Your task to perform on an android device: Clear all items from cart on costco.com. Search for dell xps on costco.com, select the first entry, add it to the cart, then select checkout. Image 0: 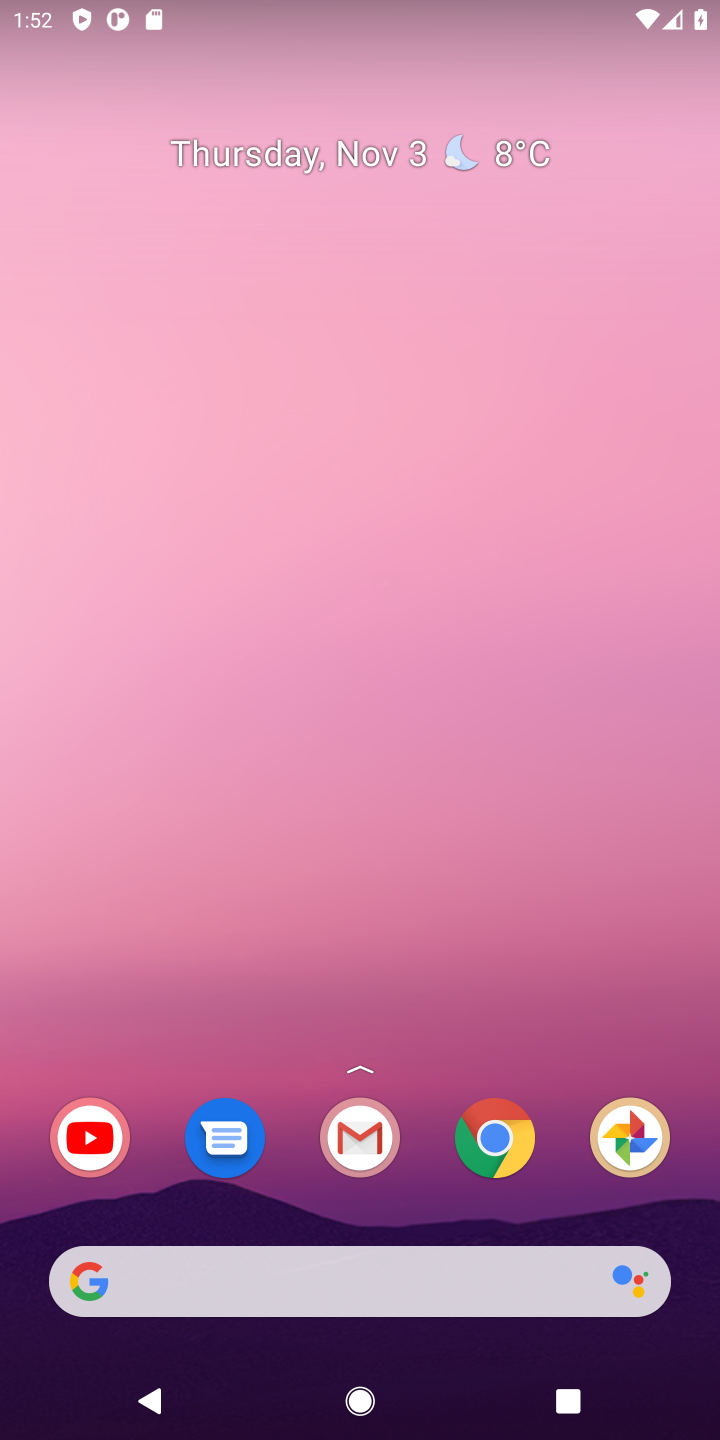
Step 0: click (506, 1115)
Your task to perform on an android device: Clear all items from cart on costco.com. Search for dell xps on costco.com, select the first entry, add it to the cart, then select checkout. Image 1: 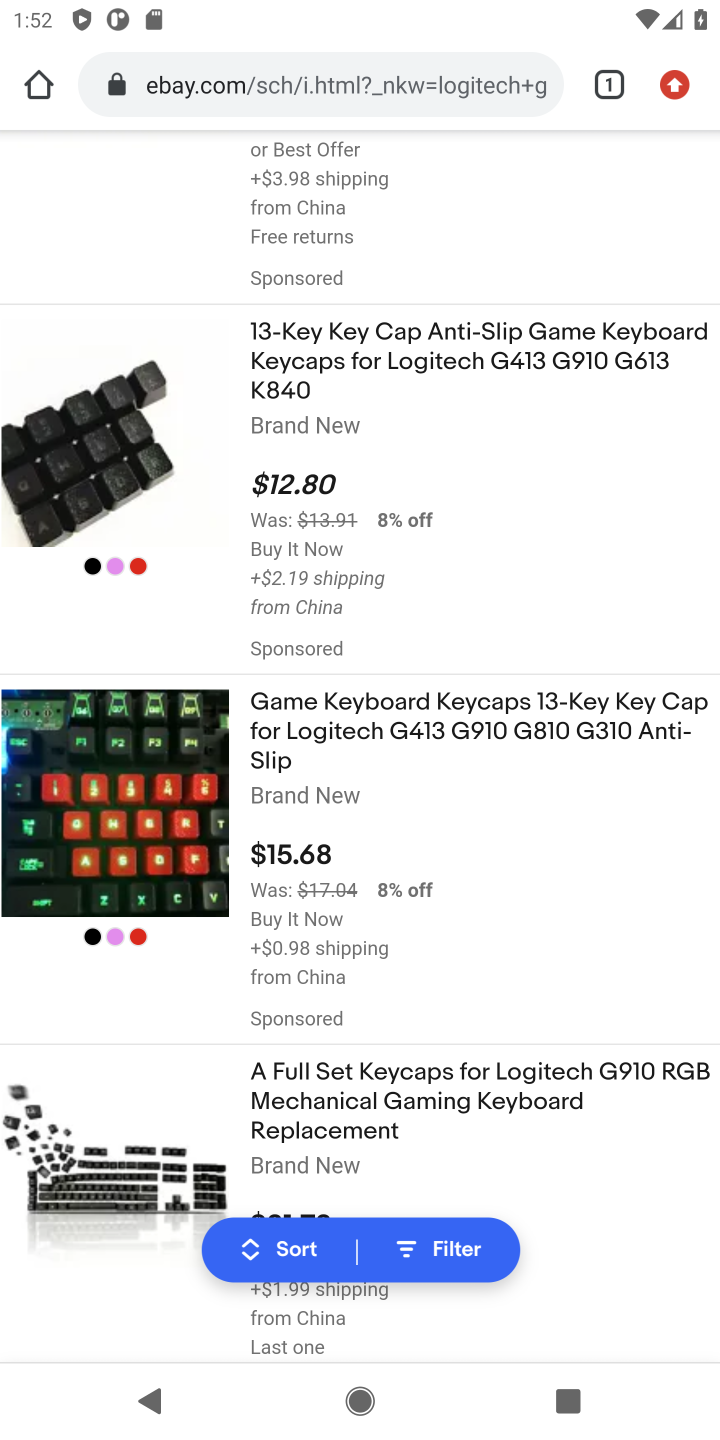
Step 1: click (294, 95)
Your task to perform on an android device: Clear all items from cart on costco.com. Search for dell xps on costco.com, select the first entry, add it to the cart, then select checkout. Image 2: 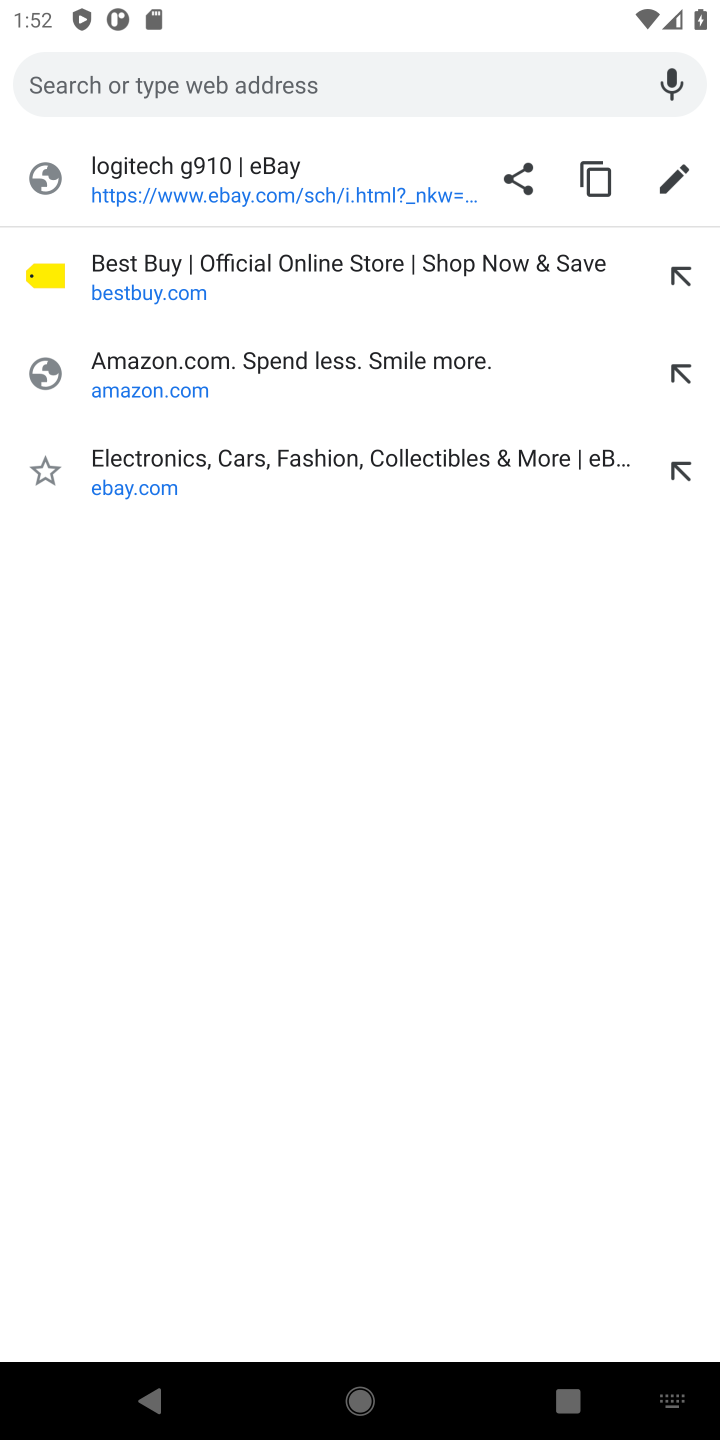
Step 2: type "costco"
Your task to perform on an android device: Clear all items from cart on costco.com. Search for dell xps on costco.com, select the first entry, add it to the cart, then select checkout. Image 3: 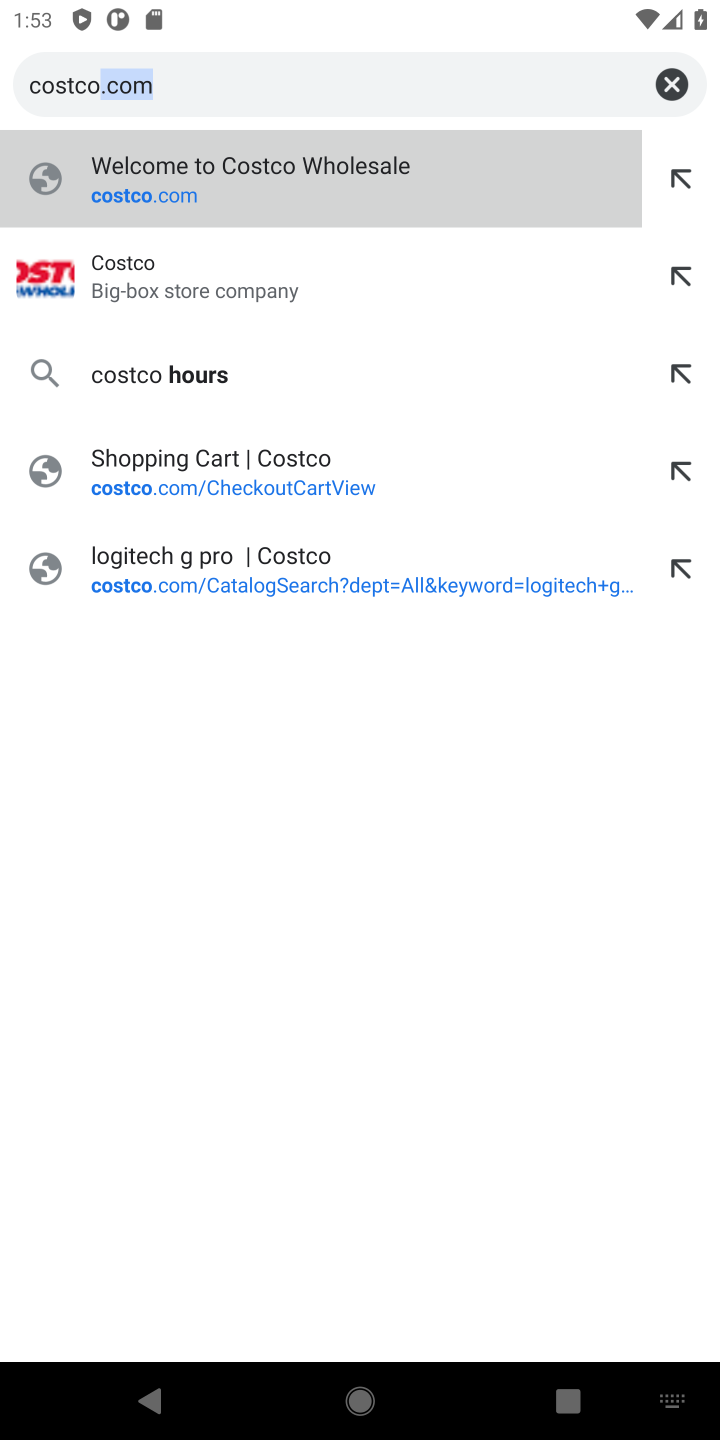
Step 3: click (128, 267)
Your task to perform on an android device: Clear all items from cart on costco.com. Search for dell xps on costco.com, select the first entry, add it to the cart, then select checkout. Image 4: 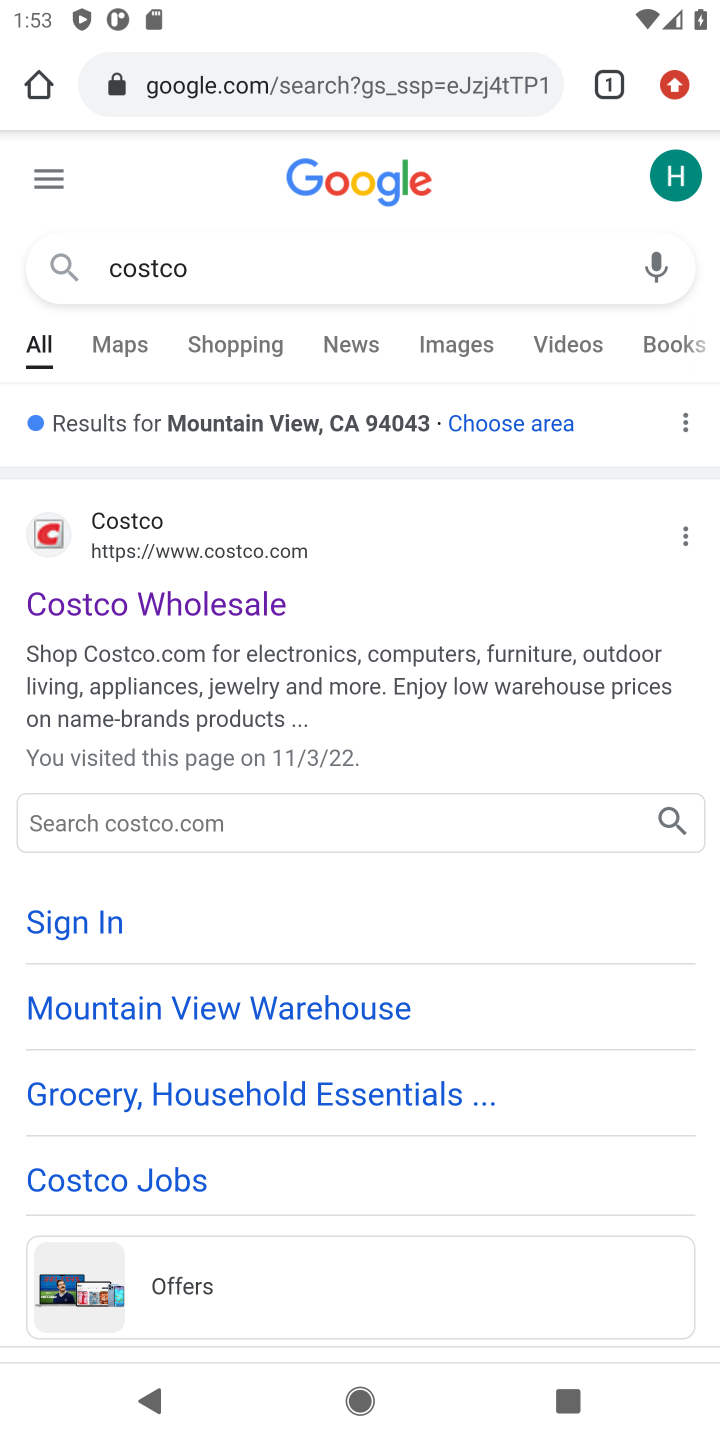
Step 4: click (126, 623)
Your task to perform on an android device: Clear all items from cart on costco.com. Search for dell xps on costco.com, select the first entry, add it to the cart, then select checkout. Image 5: 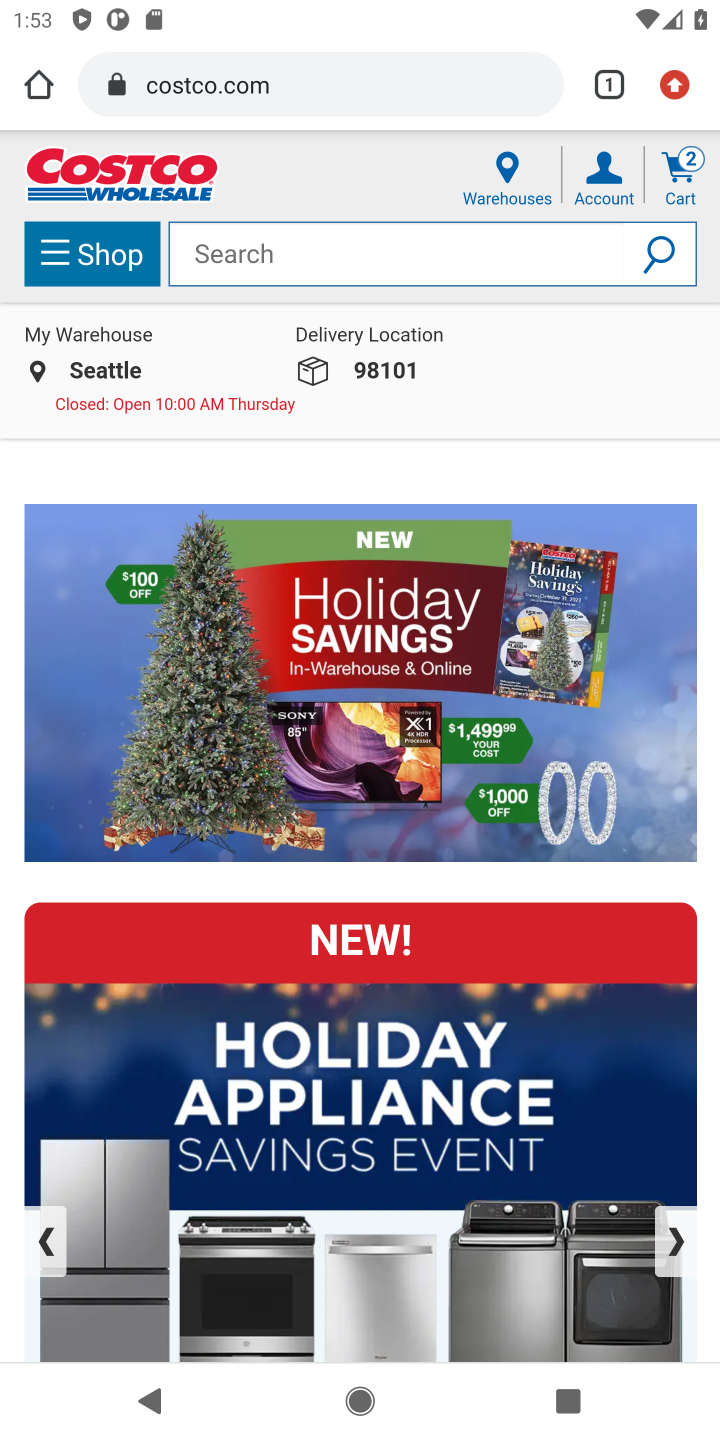
Step 5: click (666, 163)
Your task to perform on an android device: Clear all items from cart on costco.com. Search for dell xps on costco.com, select the first entry, add it to the cart, then select checkout. Image 6: 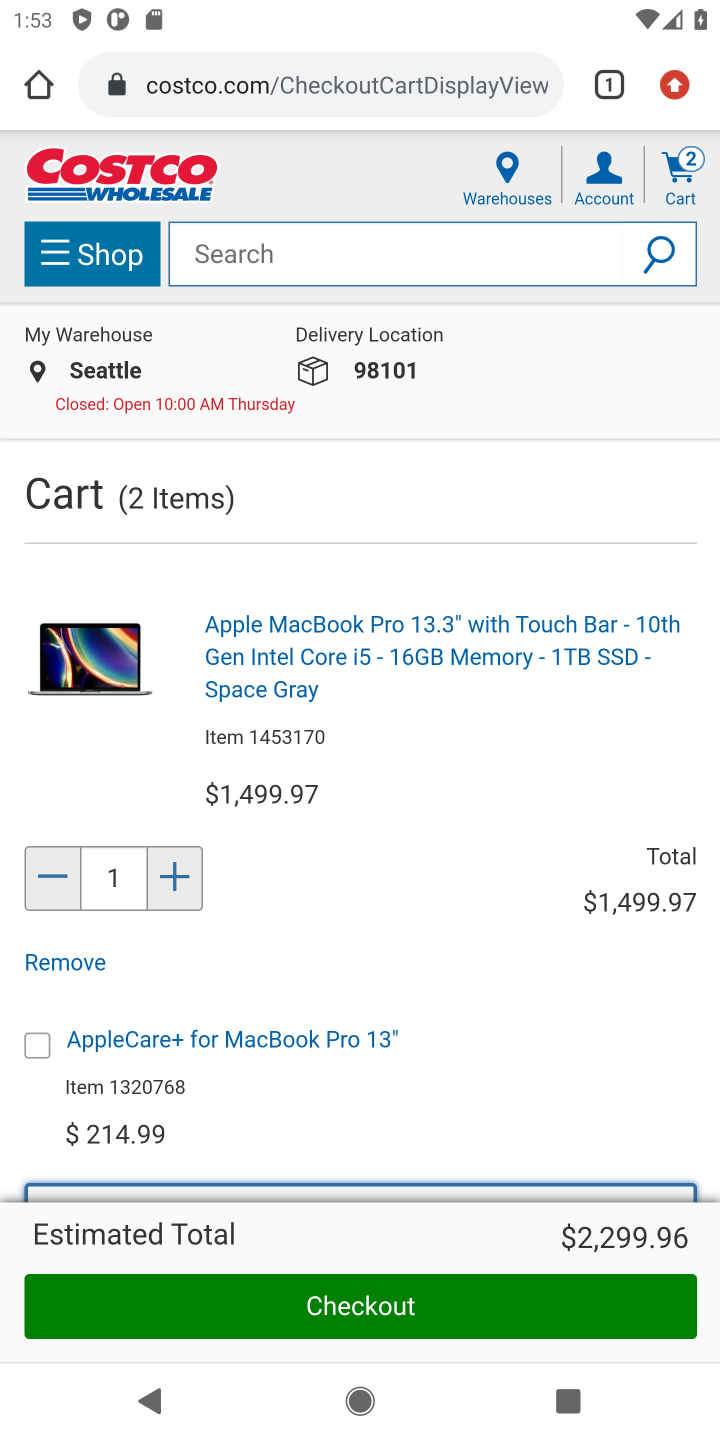
Step 6: click (57, 962)
Your task to perform on an android device: Clear all items from cart on costco.com. Search for dell xps on costco.com, select the first entry, add it to the cart, then select checkout. Image 7: 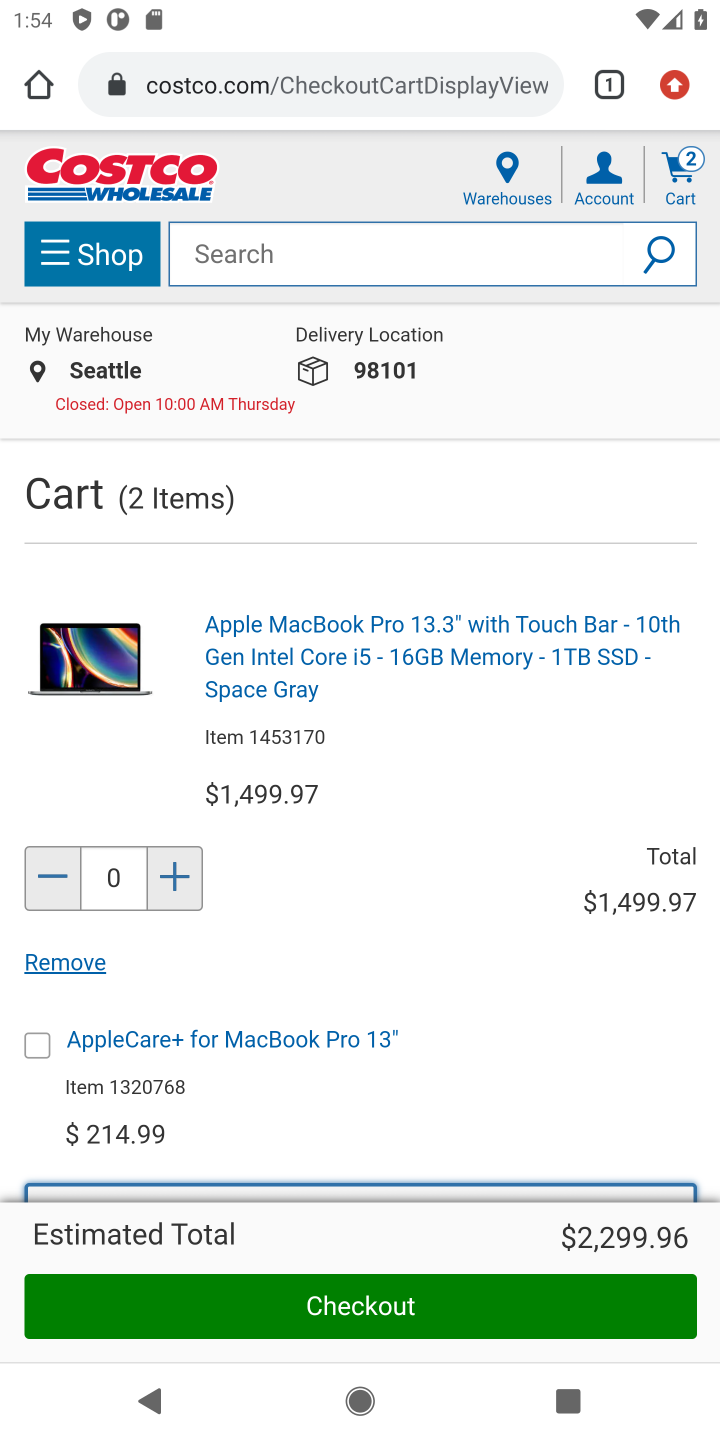
Step 7: click (76, 952)
Your task to perform on an android device: Clear all items from cart on costco.com. Search for dell xps on costco.com, select the first entry, add it to the cart, then select checkout. Image 8: 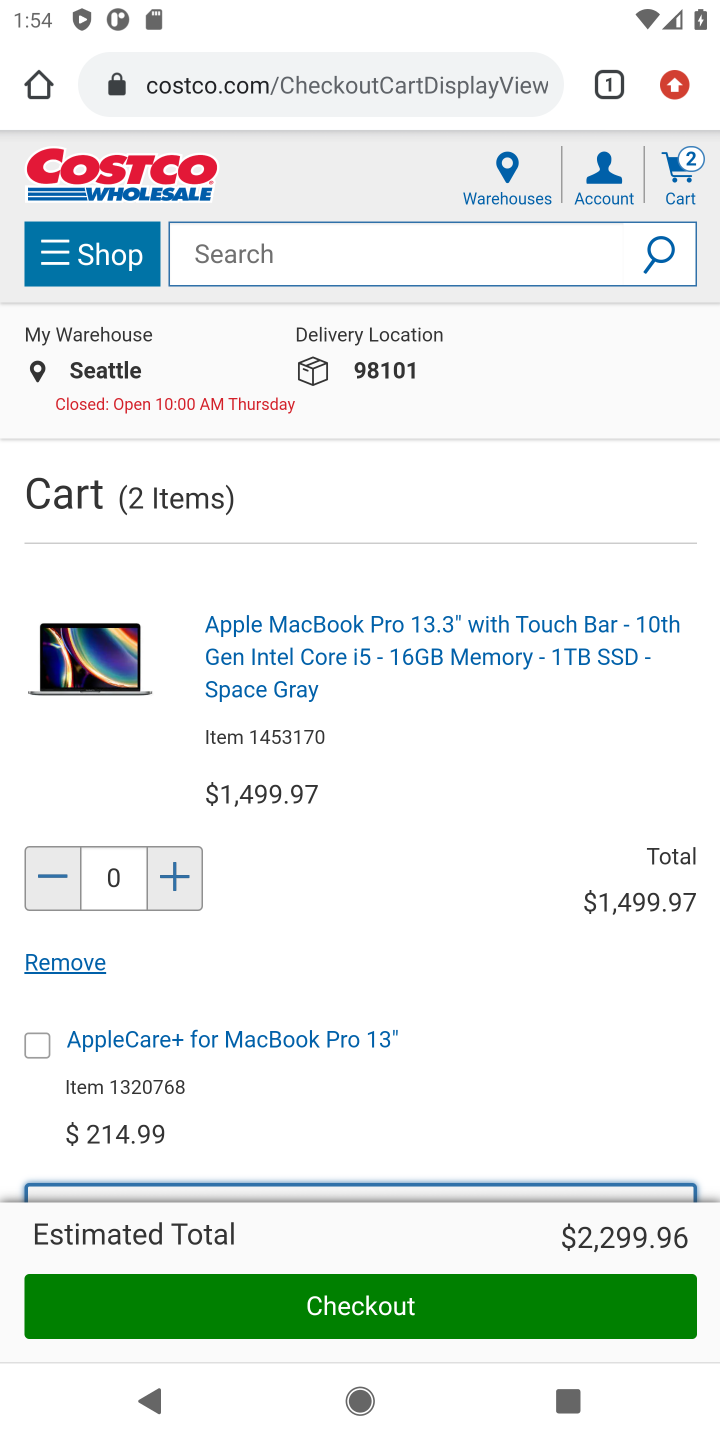
Step 8: click (76, 952)
Your task to perform on an android device: Clear all items from cart on costco.com. Search for dell xps on costco.com, select the first entry, add it to the cart, then select checkout. Image 9: 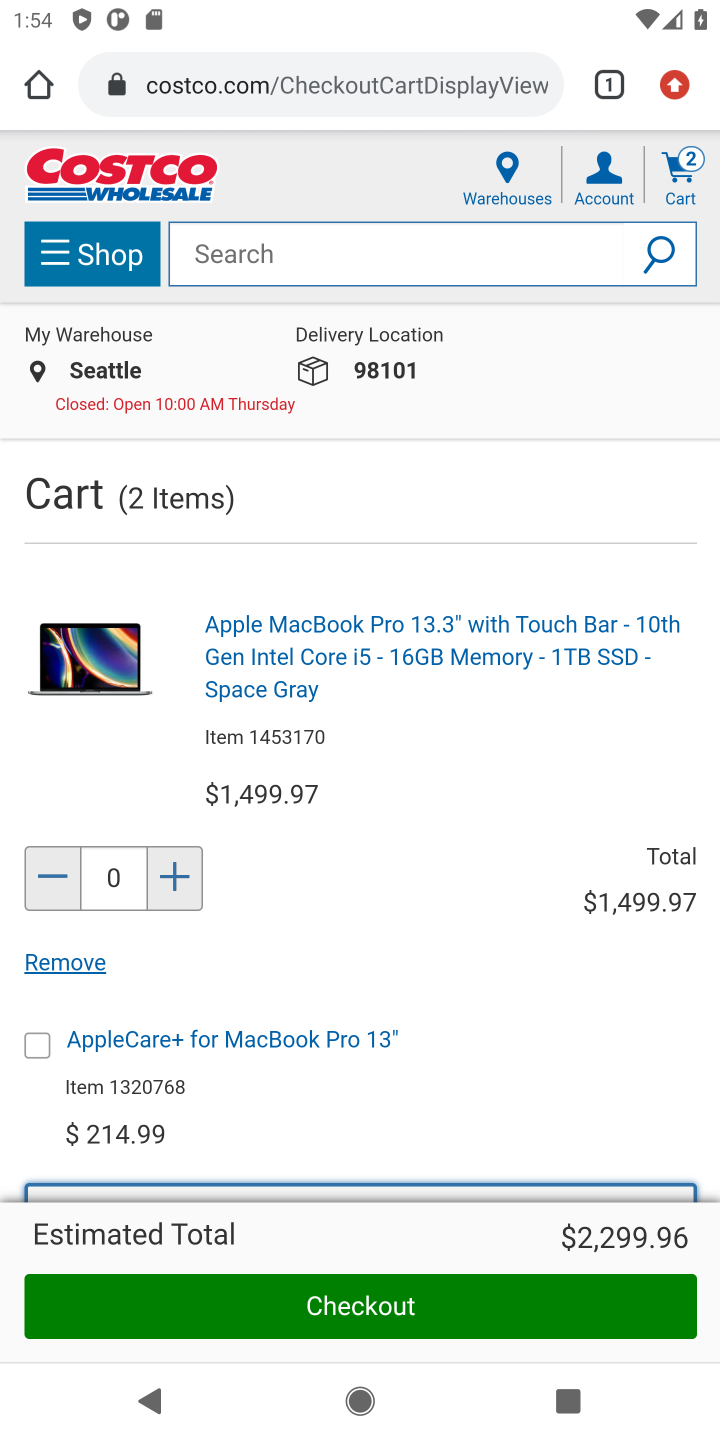
Step 9: click (71, 970)
Your task to perform on an android device: Clear all items from cart on costco.com. Search for dell xps on costco.com, select the first entry, add it to the cart, then select checkout. Image 10: 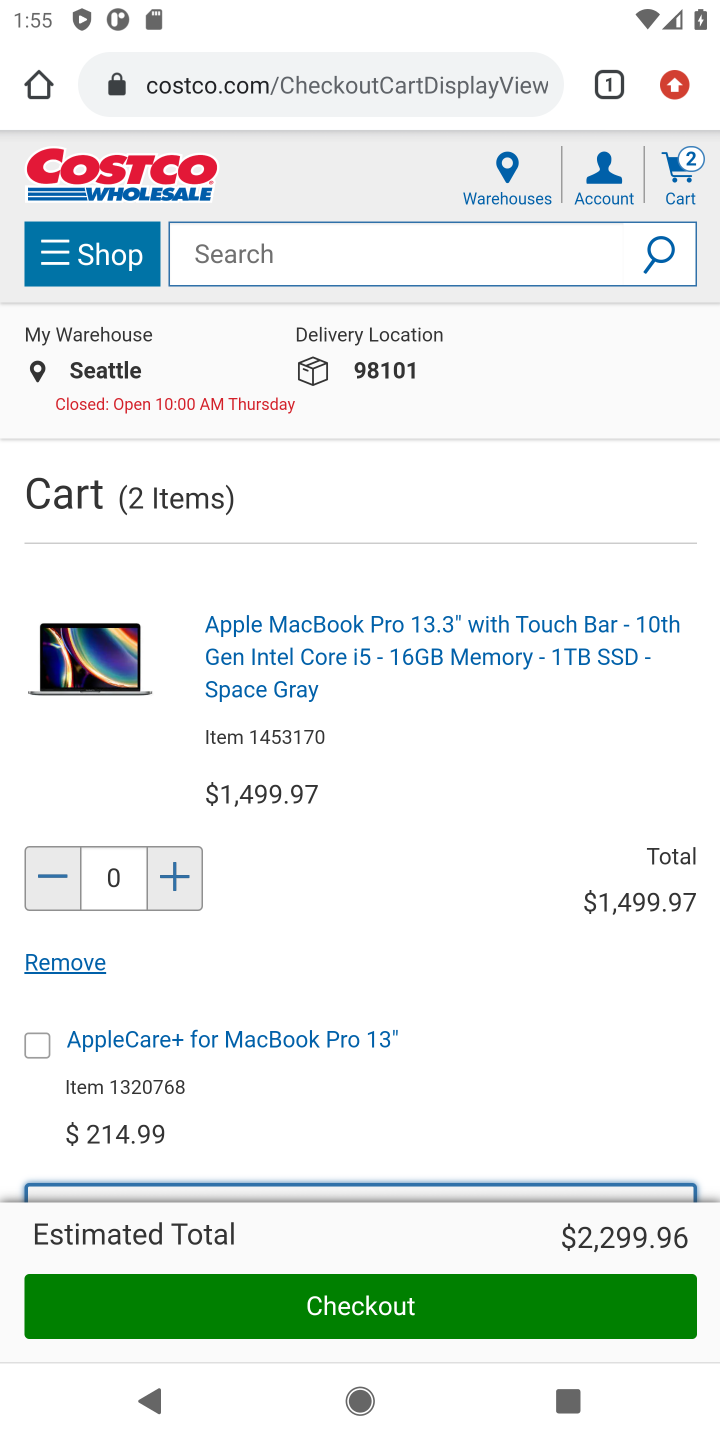
Step 10: task complete